Your task to perform on an android device: turn smart compose on in the gmail app Image 0: 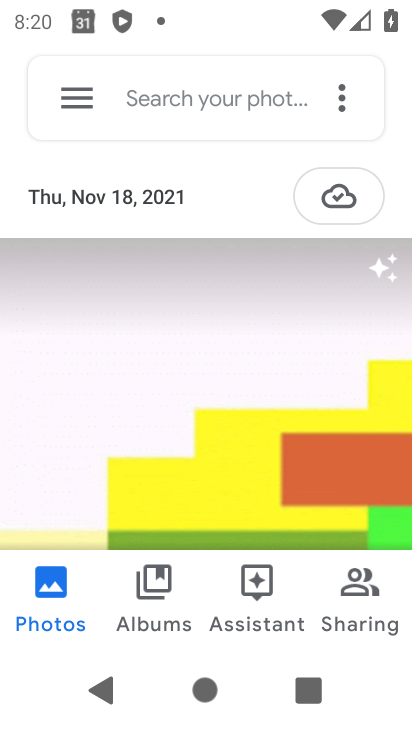
Step 0: press home button
Your task to perform on an android device: turn smart compose on in the gmail app Image 1: 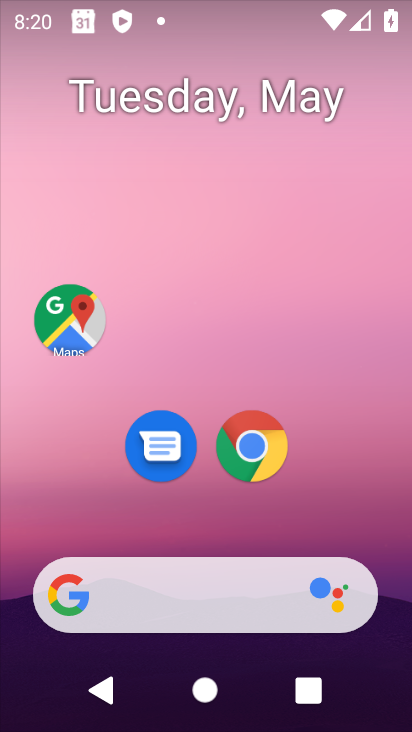
Step 1: drag from (342, 535) to (339, 41)
Your task to perform on an android device: turn smart compose on in the gmail app Image 2: 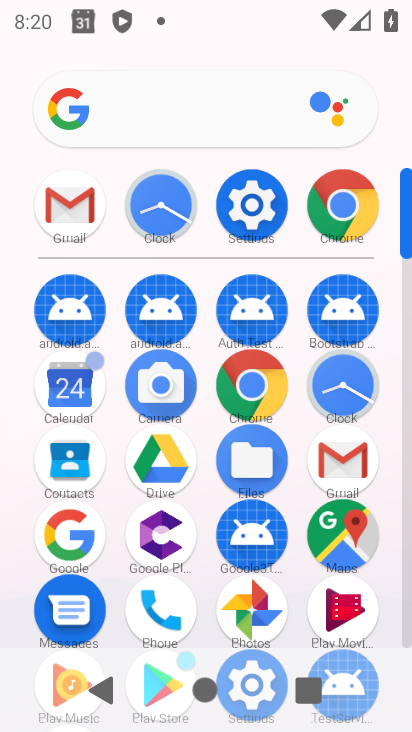
Step 2: click (70, 211)
Your task to perform on an android device: turn smart compose on in the gmail app Image 3: 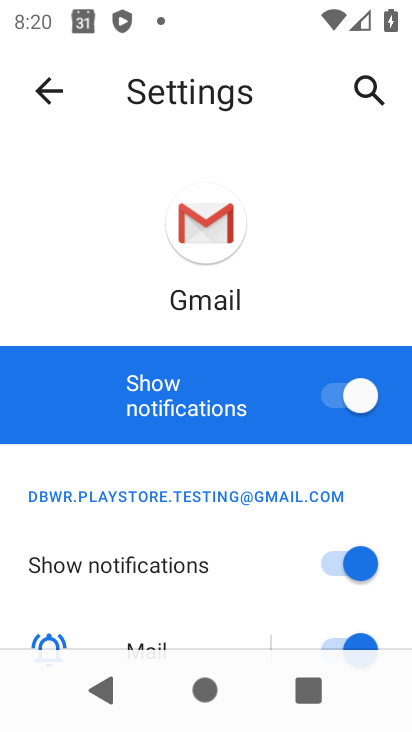
Step 3: click (46, 101)
Your task to perform on an android device: turn smart compose on in the gmail app Image 4: 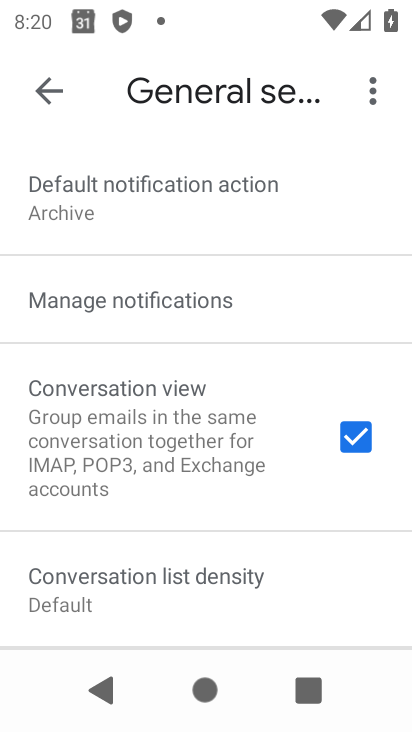
Step 4: click (51, 102)
Your task to perform on an android device: turn smart compose on in the gmail app Image 5: 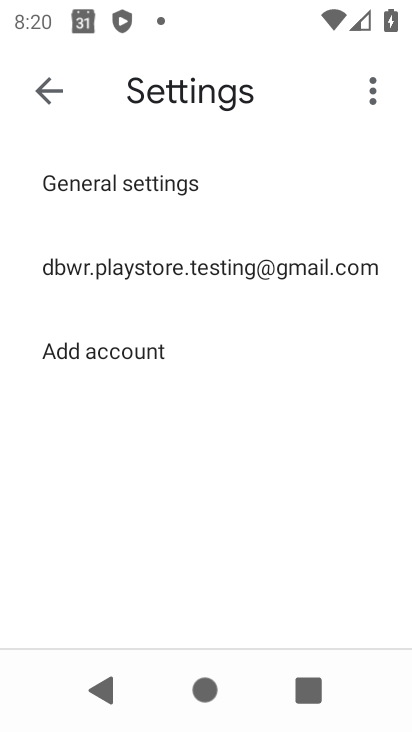
Step 5: click (110, 274)
Your task to perform on an android device: turn smart compose on in the gmail app Image 6: 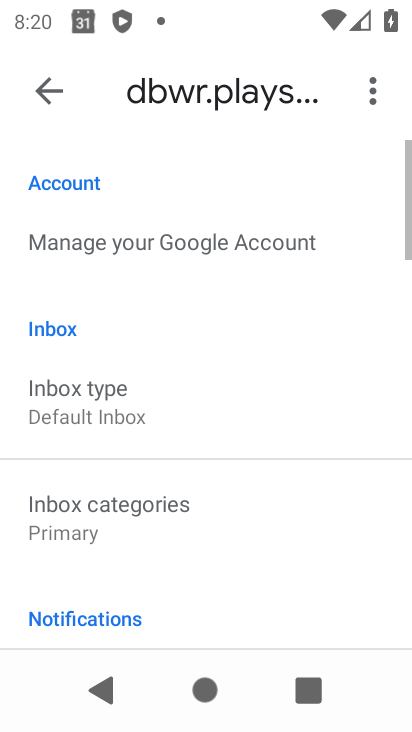
Step 6: task complete